Your task to perform on an android device: See recent photos Image 0: 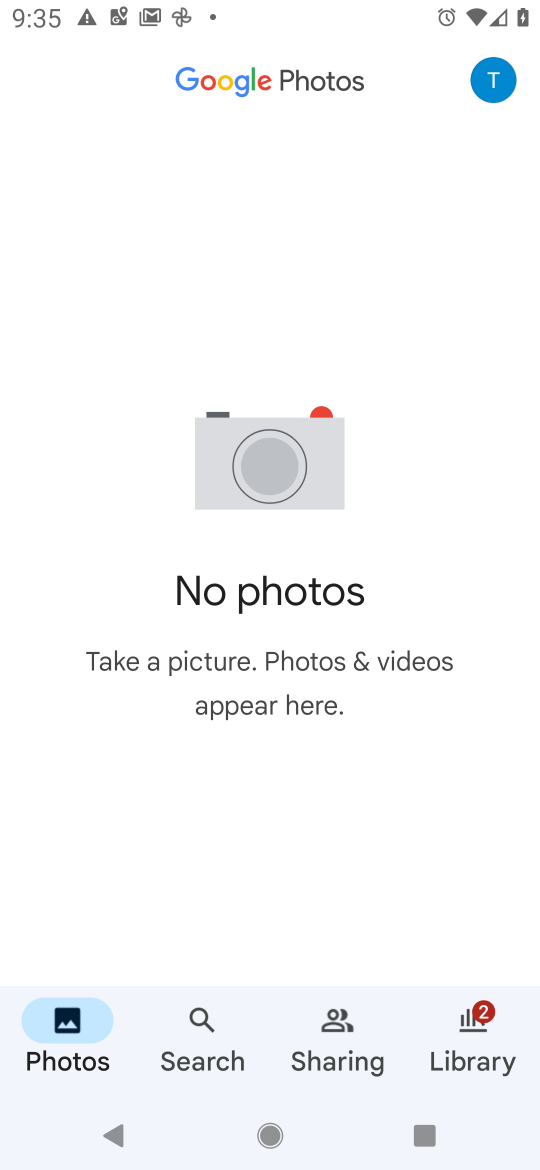
Step 0: press home button
Your task to perform on an android device: See recent photos Image 1: 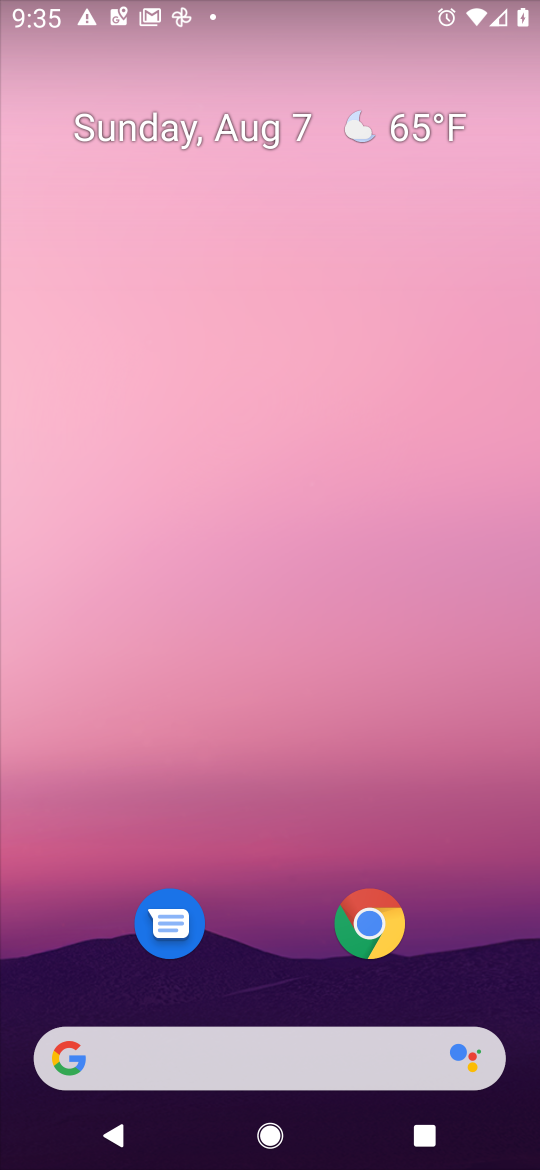
Step 1: drag from (493, 990) to (231, 50)
Your task to perform on an android device: See recent photos Image 2: 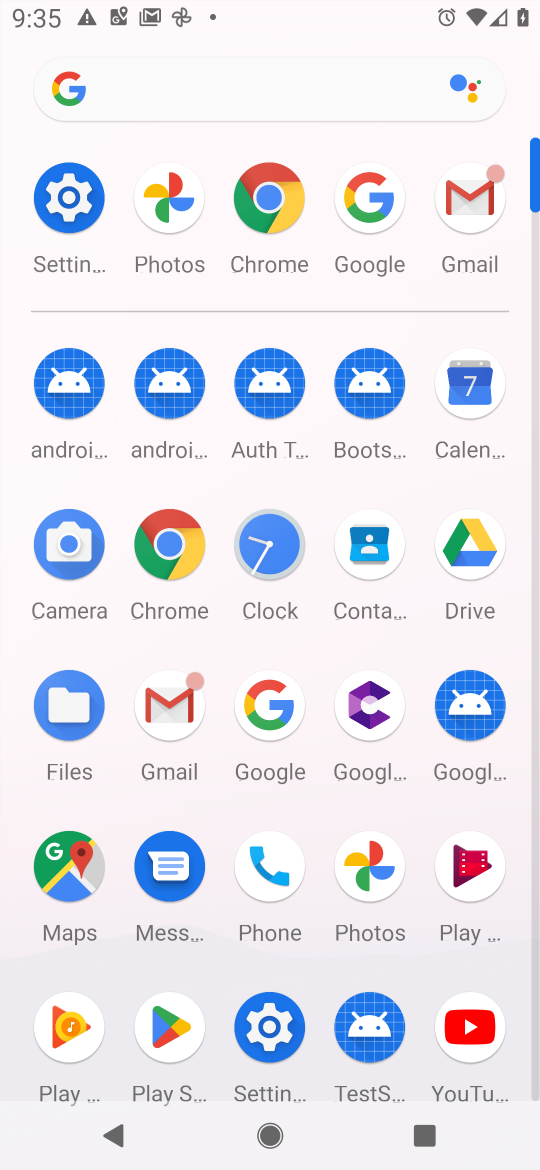
Step 2: click (362, 897)
Your task to perform on an android device: See recent photos Image 3: 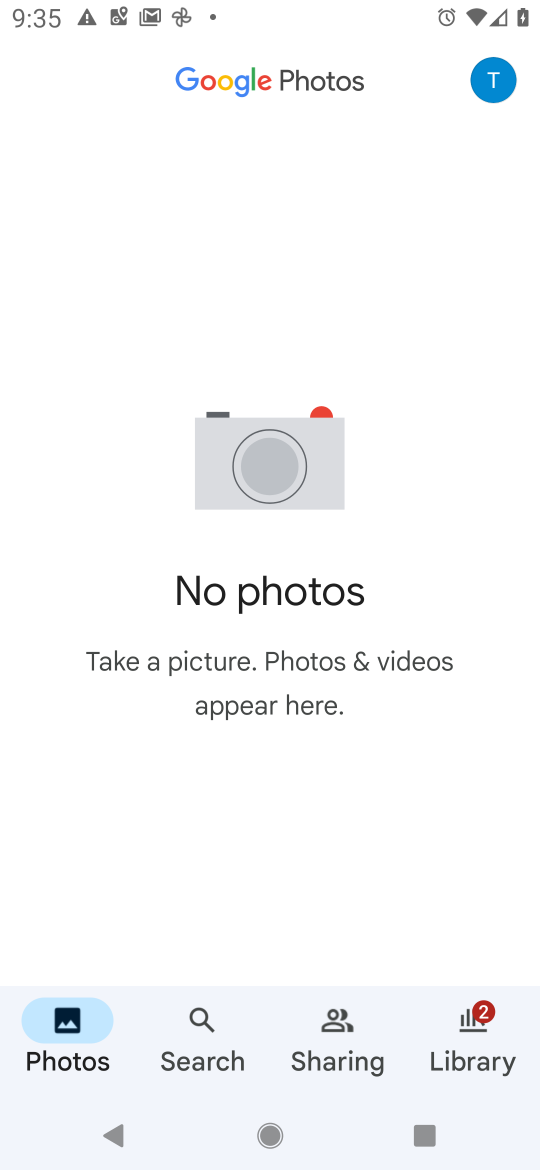
Step 3: task complete